Your task to perform on an android device: change your default location settings in chrome Image 0: 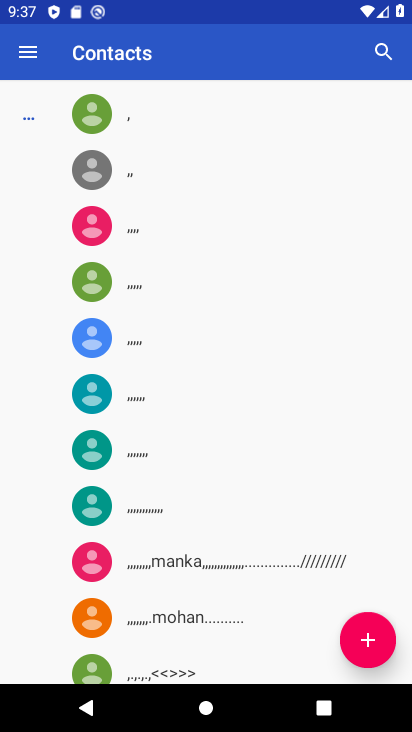
Step 0: click (134, 570)
Your task to perform on an android device: change your default location settings in chrome Image 1: 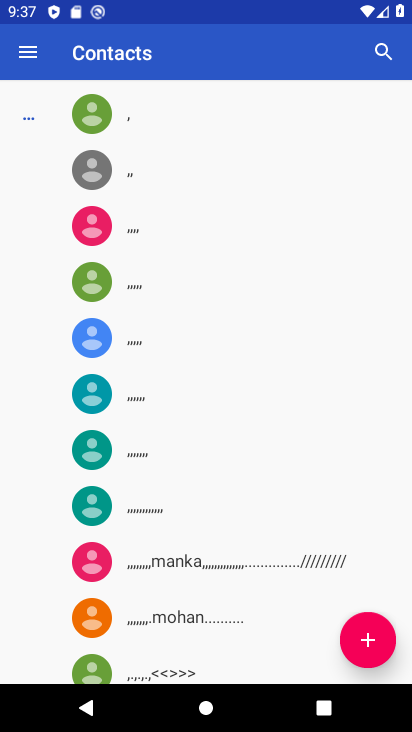
Step 1: press home button
Your task to perform on an android device: change your default location settings in chrome Image 2: 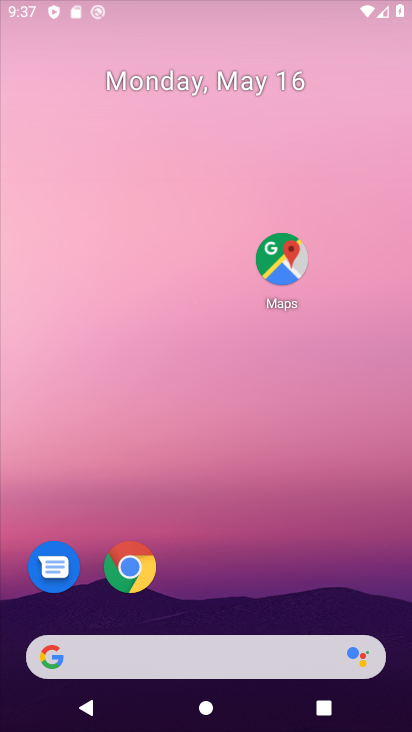
Step 2: click (380, 54)
Your task to perform on an android device: change your default location settings in chrome Image 3: 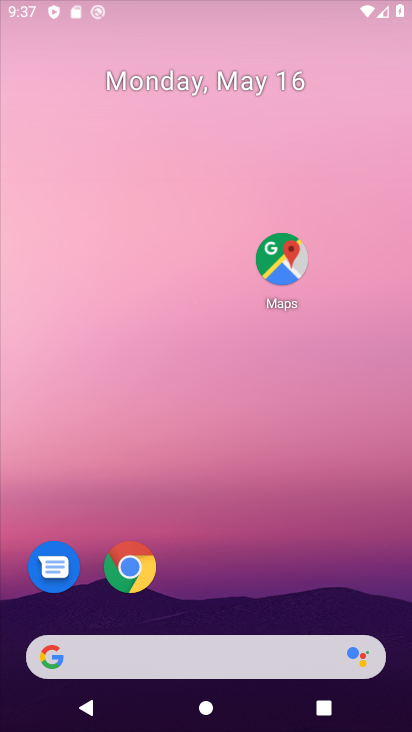
Step 3: click (233, 581)
Your task to perform on an android device: change your default location settings in chrome Image 4: 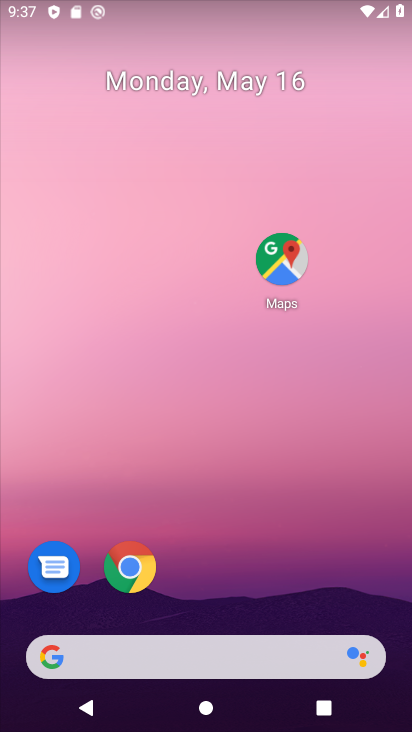
Step 4: click (210, 627)
Your task to perform on an android device: change your default location settings in chrome Image 5: 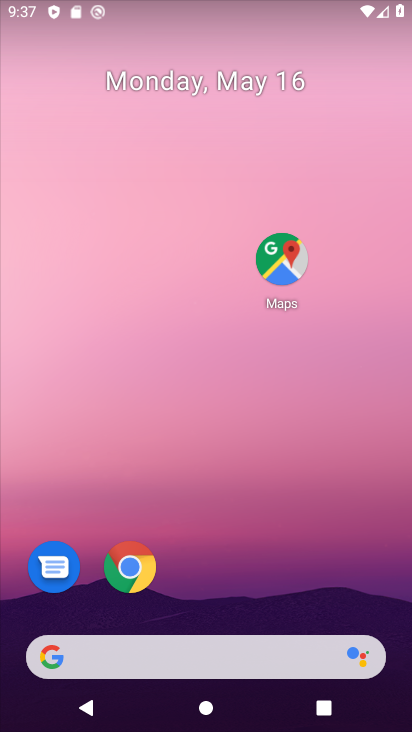
Step 5: click (129, 570)
Your task to perform on an android device: change your default location settings in chrome Image 6: 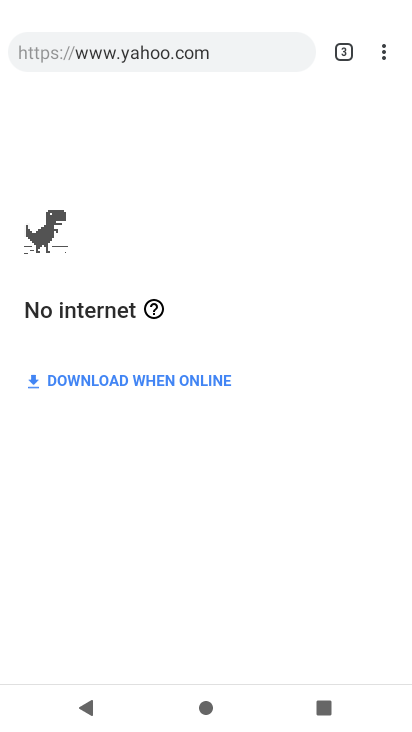
Step 6: click (130, 239)
Your task to perform on an android device: change your default location settings in chrome Image 7: 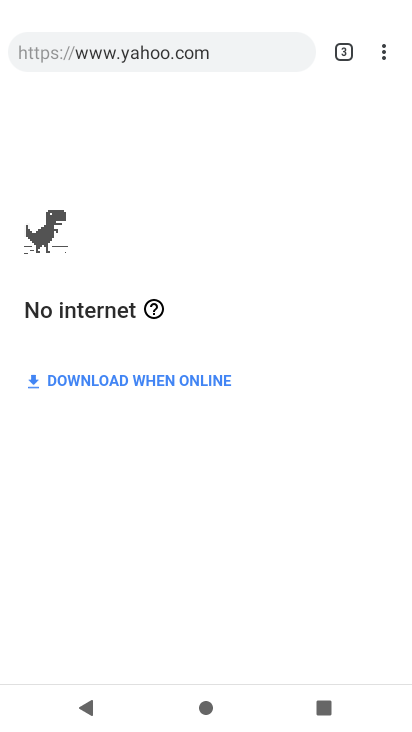
Step 7: click (378, 52)
Your task to perform on an android device: change your default location settings in chrome Image 8: 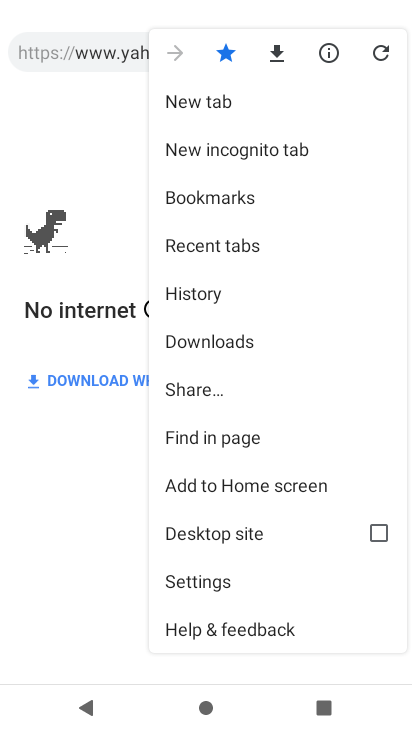
Step 8: click (28, 188)
Your task to perform on an android device: change your default location settings in chrome Image 9: 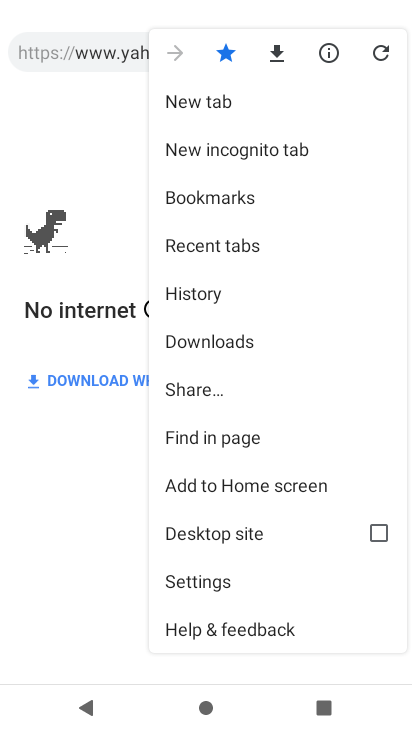
Step 9: click (206, 572)
Your task to perform on an android device: change your default location settings in chrome Image 10: 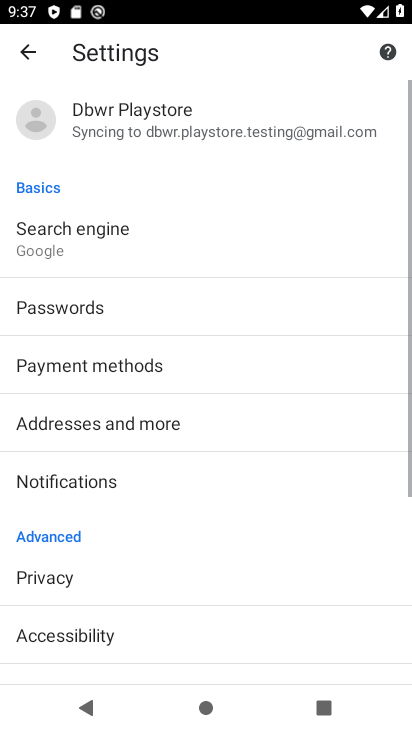
Step 10: task complete
Your task to perform on an android device: change your default location settings in chrome Image 11: 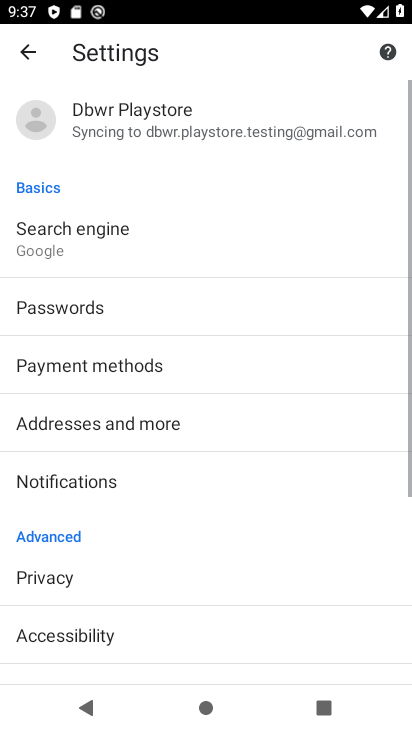
Step 11: click (98, 226)
Your task to perform on an android device: change your default location settings in chrome Image 12: 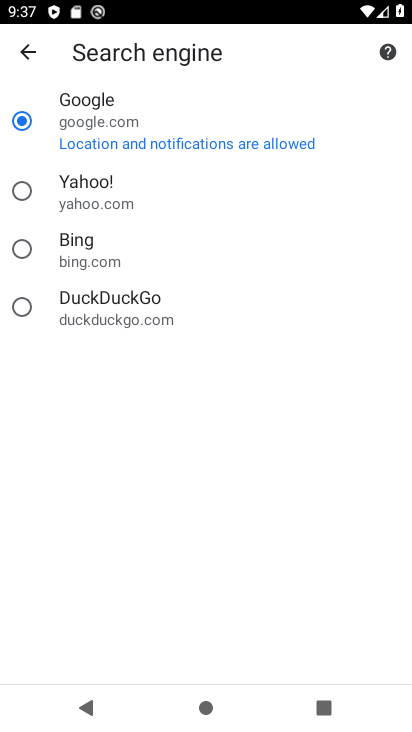
Step 12: click (20, 194)
Your task to perform on an android device: change your default location settings in chrome Image 13: 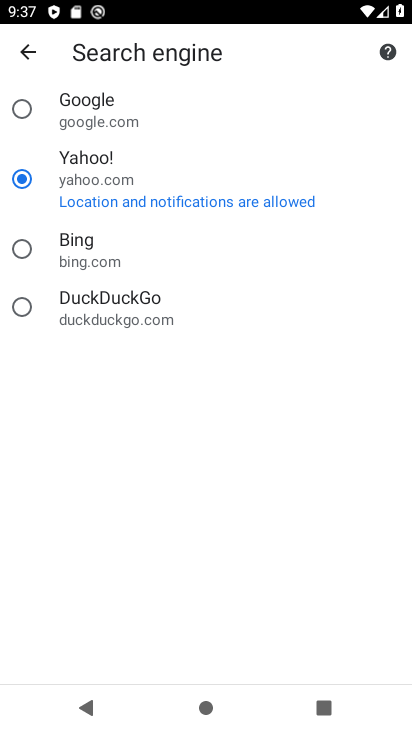
Step 13: task complete